Your task to perform on an android device: Search for asus zenbook on costco.com, select the first entry, and add it to the cart. Image 0: 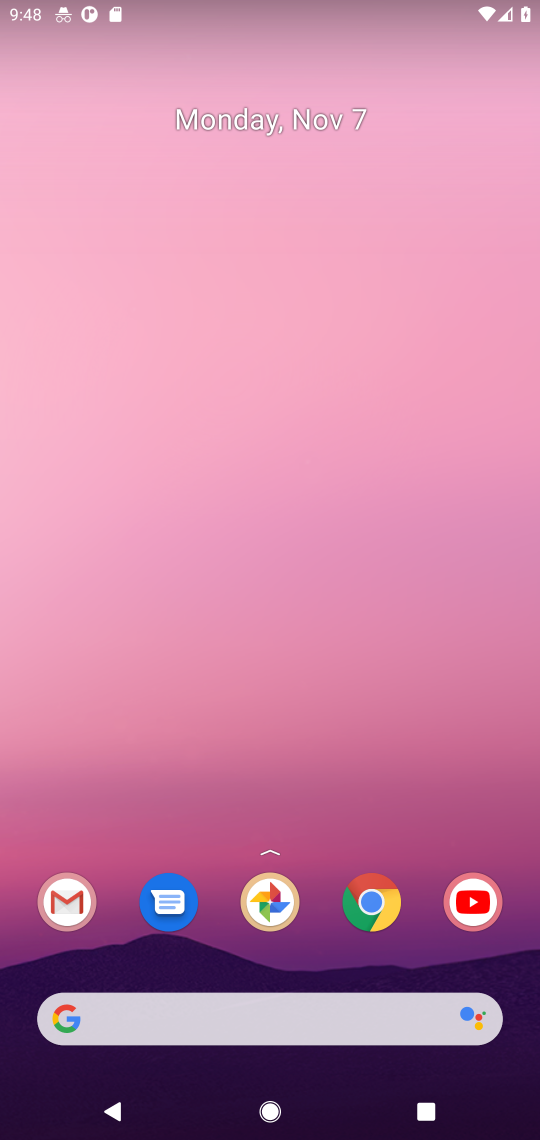
Step 0: click (370, 923)
Your task to perform on an android device: Search for asus zenbook on costco.com, select the first entry, and add it to the cart. Image 1: 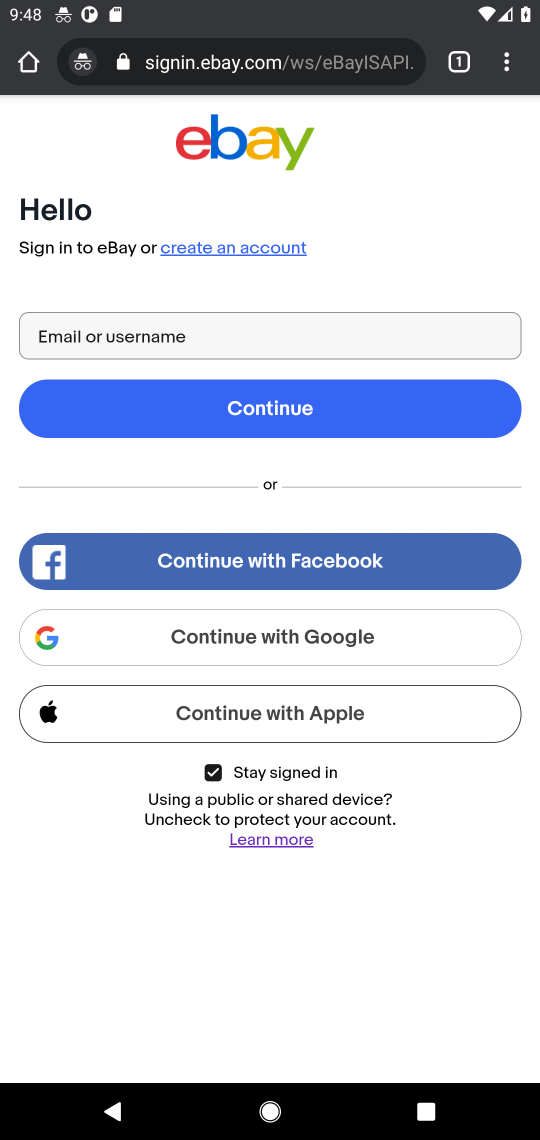
Step 1: click (241, 71)
Your task to perform on an android device: Search for asus zenbook on costco.com, select the first entry, and add it to the cart. Image 2: 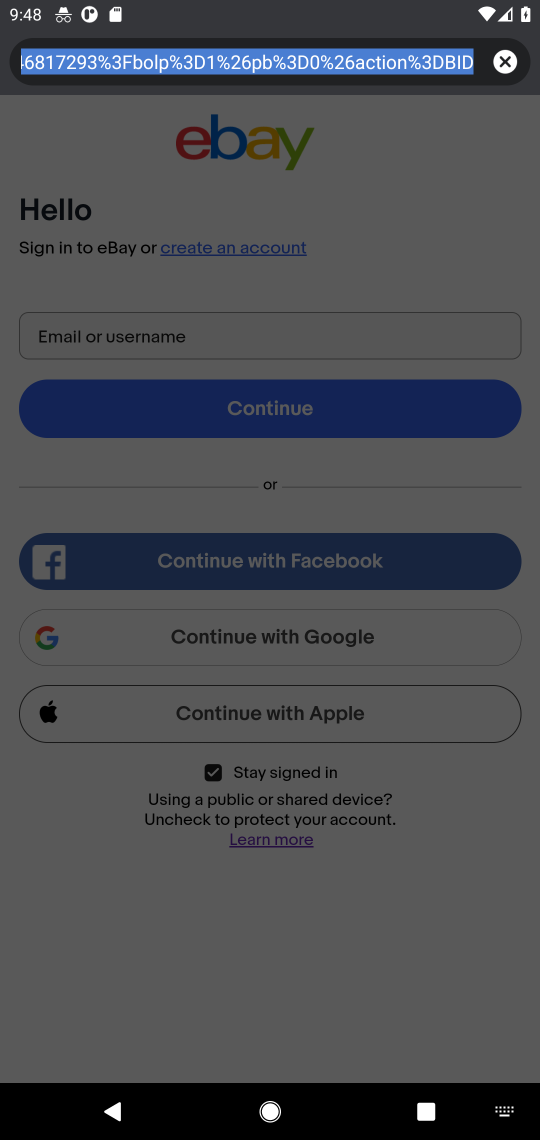
Step 2: click (503, 66)
Your task to perform on an android device: Search for asus zenbook on costco.com, select the first entry, and add it to the cart. Image 3: 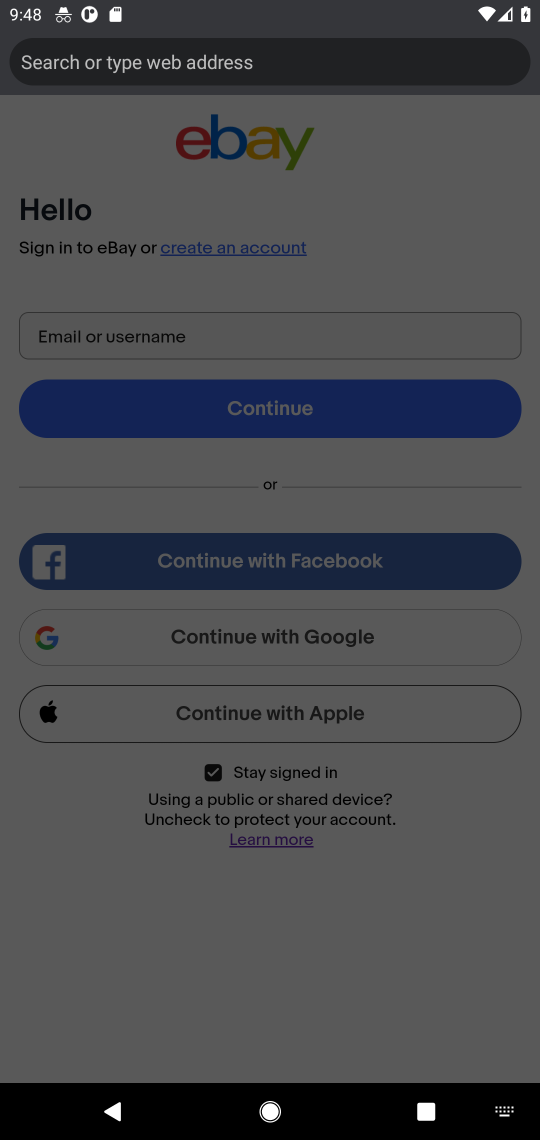
Step 3: type "costco.com"
Your task to perform on an android device: Search for asus zenbook on costco.com, select the first entry, and add it to the cart. Image 4: 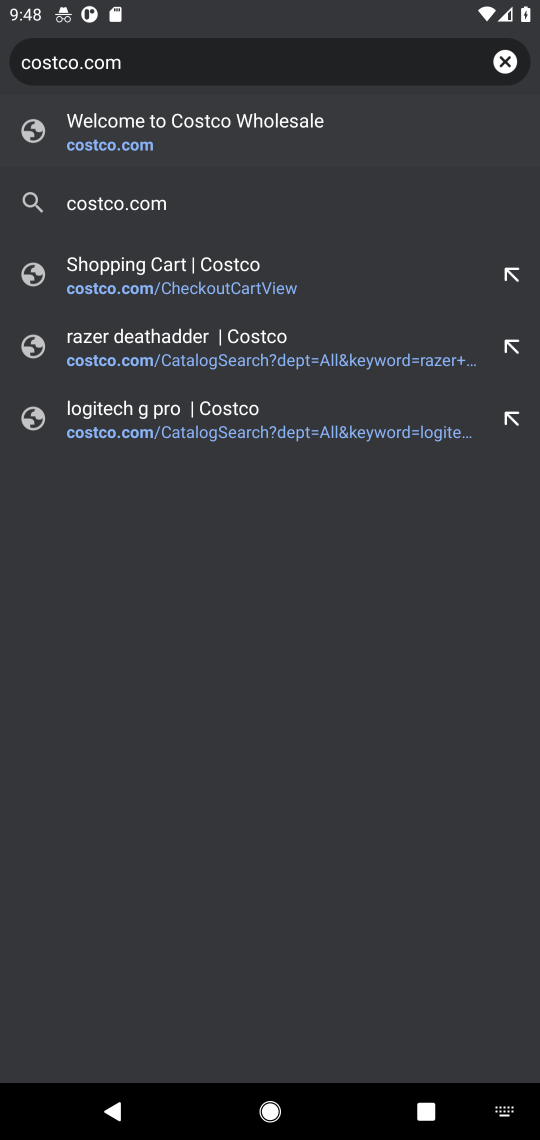
Step 4: click (85, 139)
Your task to perform on an android device: Search for asus zenbook on costco.com, select the first entry, and add it to the cart. Image 5: 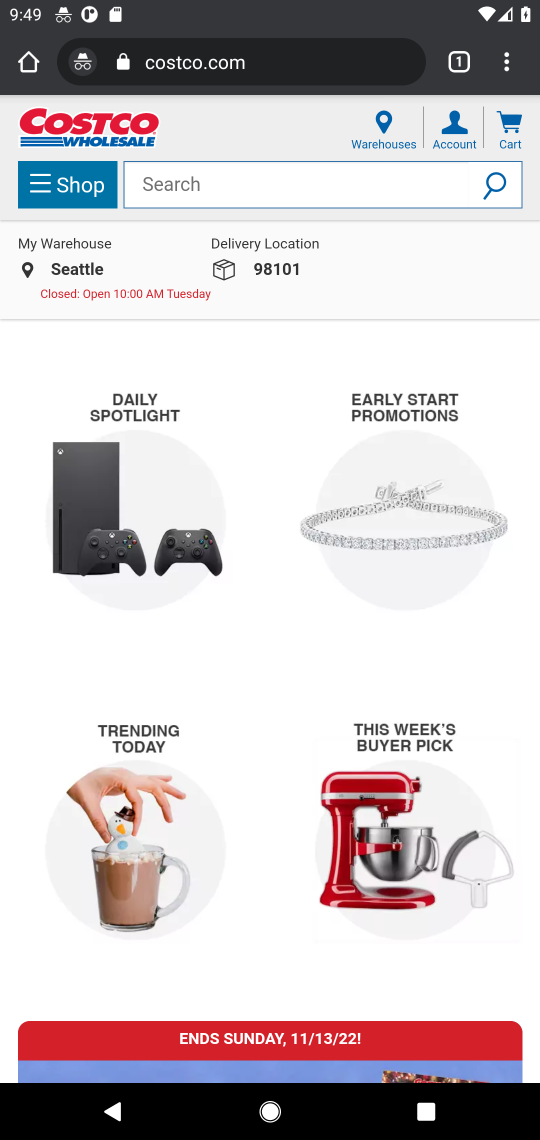
Step 5: click (228, 189)
Your task to perform on an android device: Search for asus zenbook on costco.com, select the first entry, and add it to the cart. Image 6: 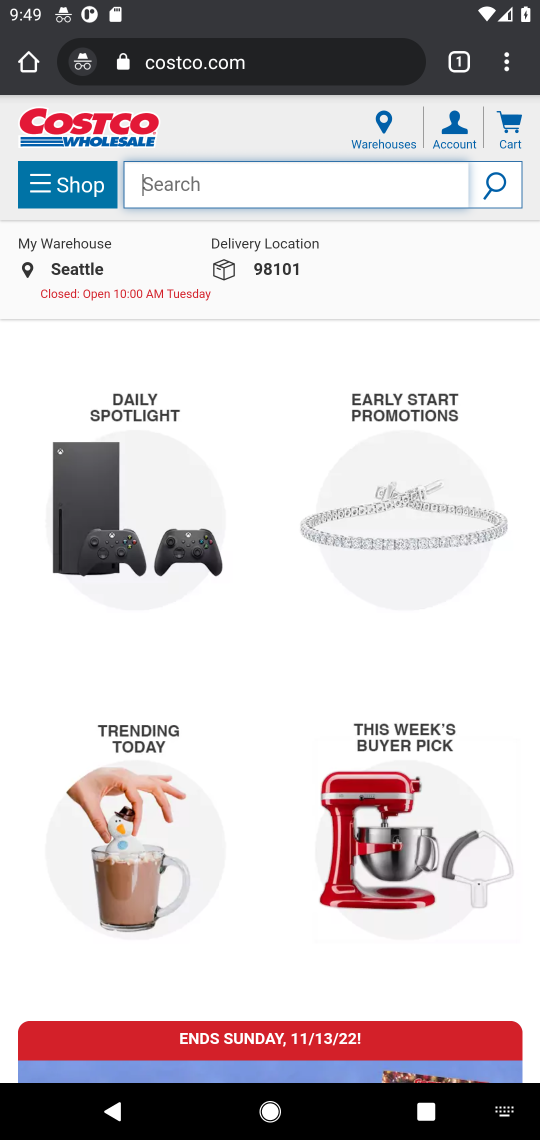
Step 6: click (221, 185)
Your task to perform on an android device: Search for asus zenbook on costco.com, select the first entry, and add it to the cart. Image 7: 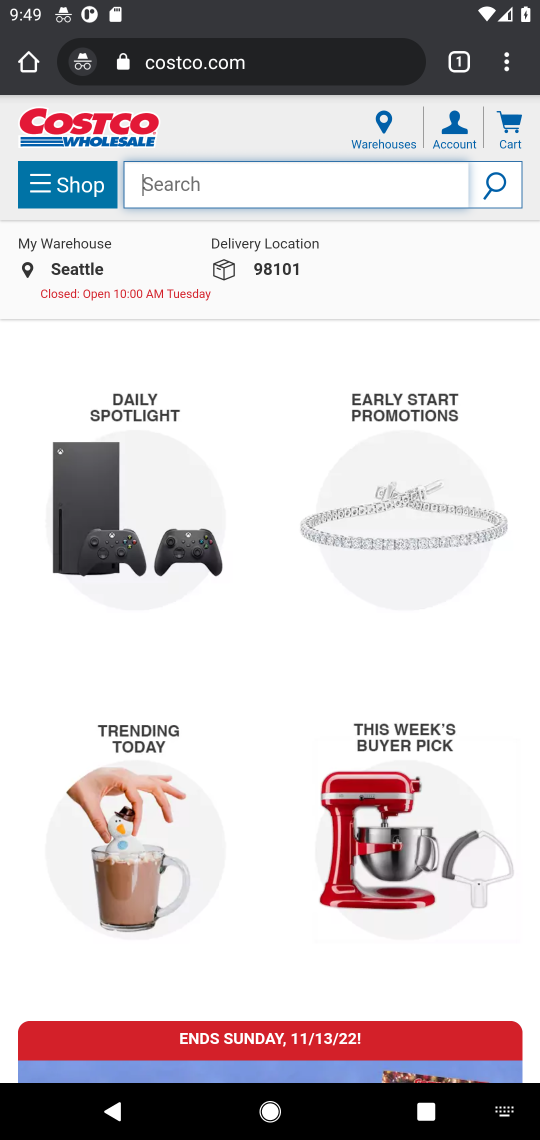
Step 7: type "asus zenbook"
Your task to perform on an android device: Search for asus zenbook on costco.com, select the first entry, and add it to the cart. Image 8: 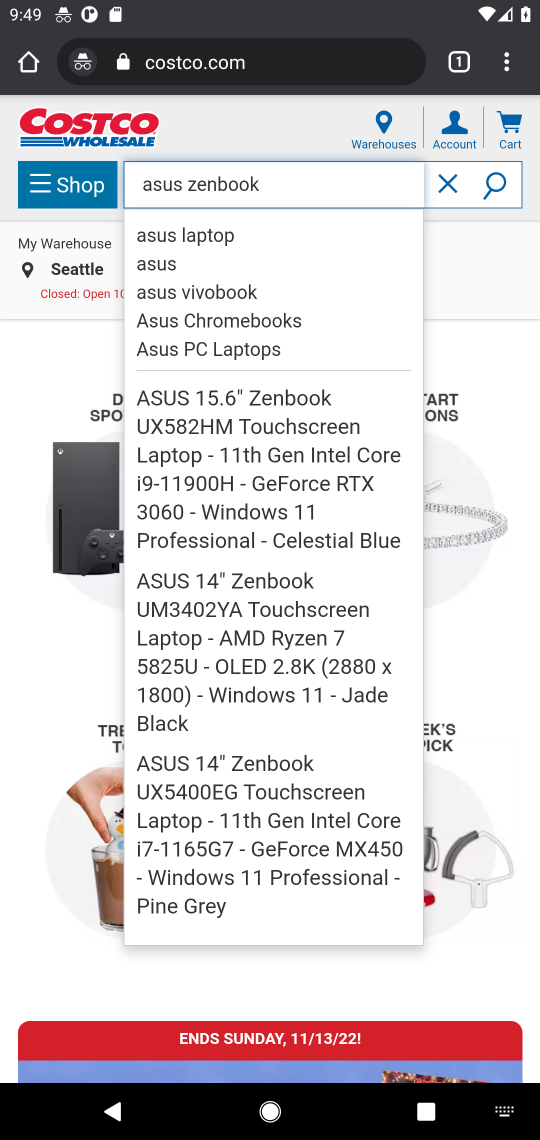
Step 8: click (500, 183)
Your task to perform on an android device: Search for asus zenbook on costco.com, select the first entry, and add it to the cart. Image 9: 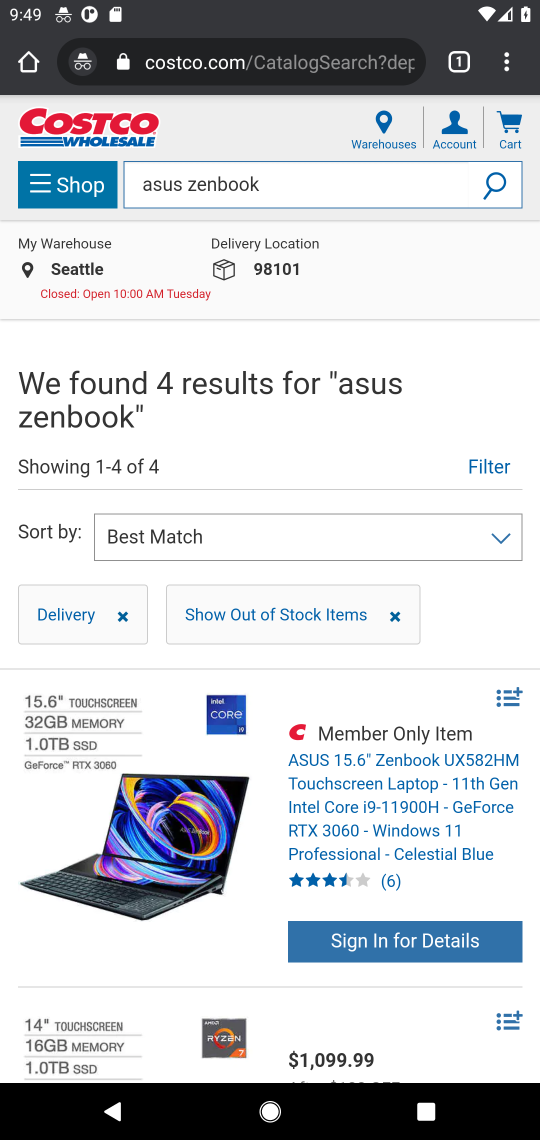
Step 9: drag from (225, 829) to (197, 535)
Your task to perform on an android device: Search for asus zenbook on costco.com, select the first entry, and add it to the cart. Image 10: 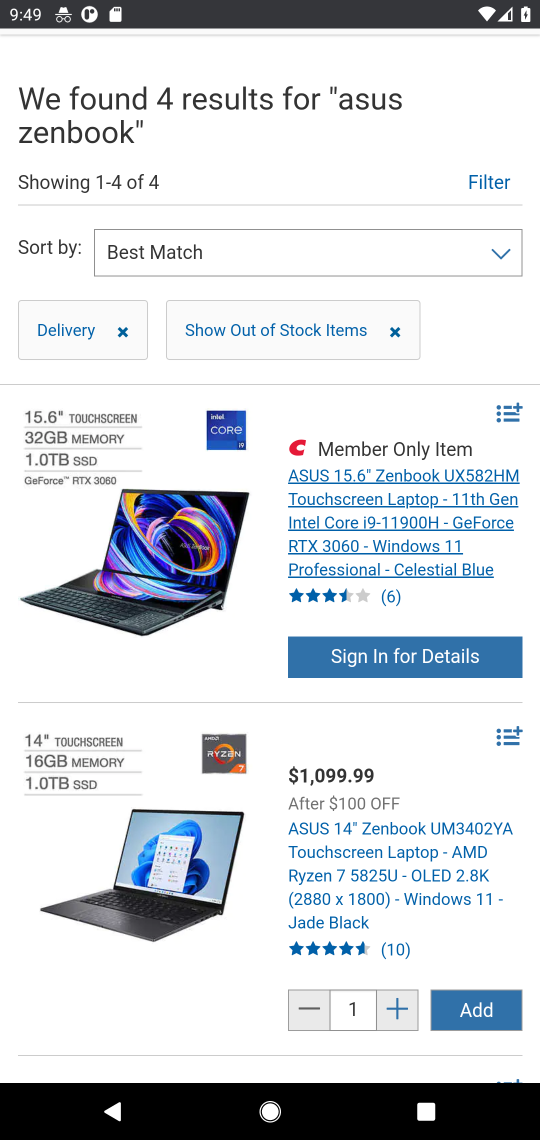
Step 10: click (201, 579)
Your task to perform on an android device: Search for asus zenbook on costco.com, select the first entry, and add it to the cart. Image 11: 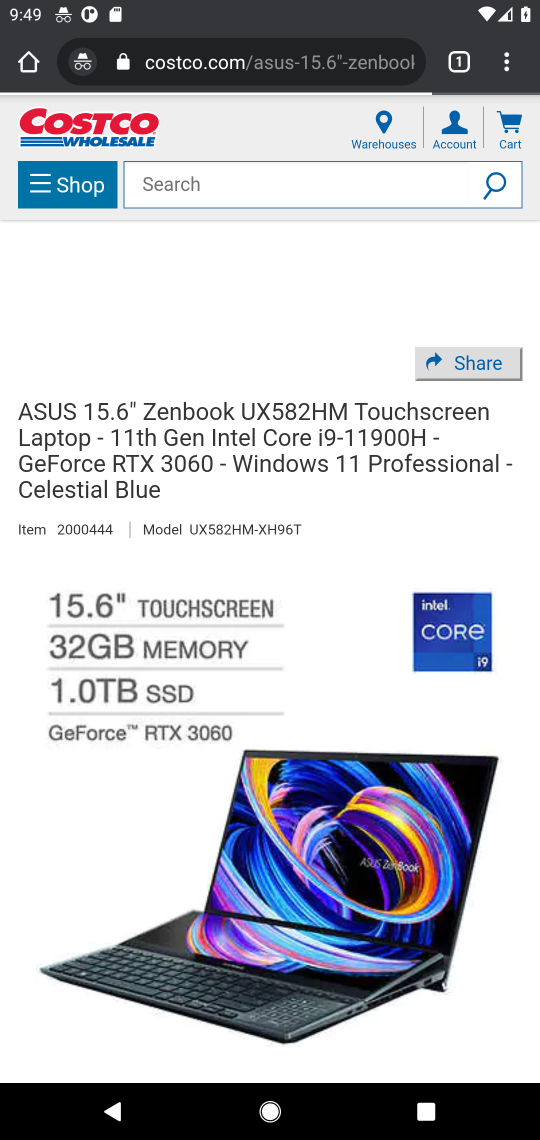
Step 11: task complete